Your task to perform on an android device: How far is the moon? Image 0: 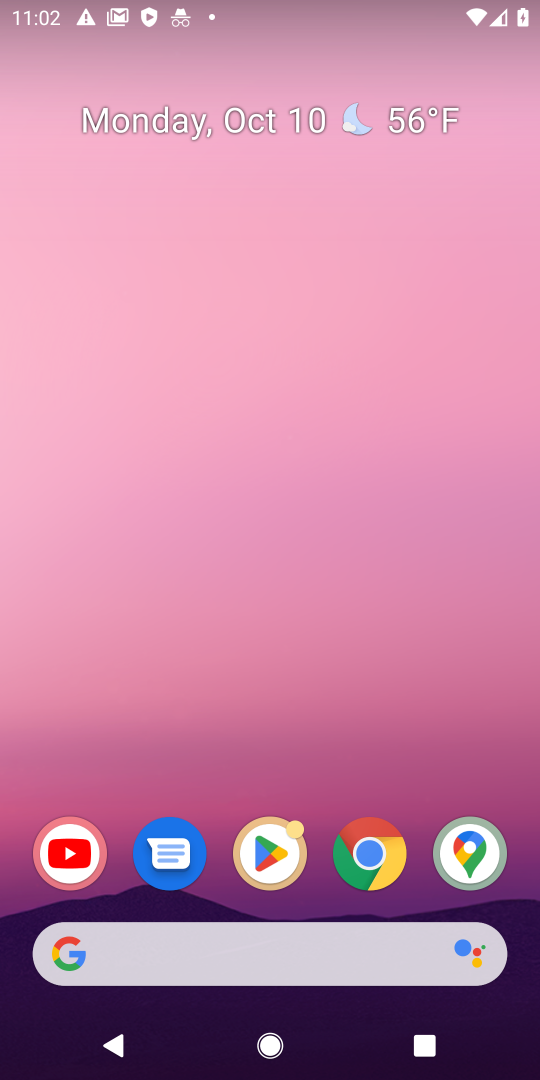
Step 0: press home button
Your task to perform on an android device: How far is the moon? Image 1: 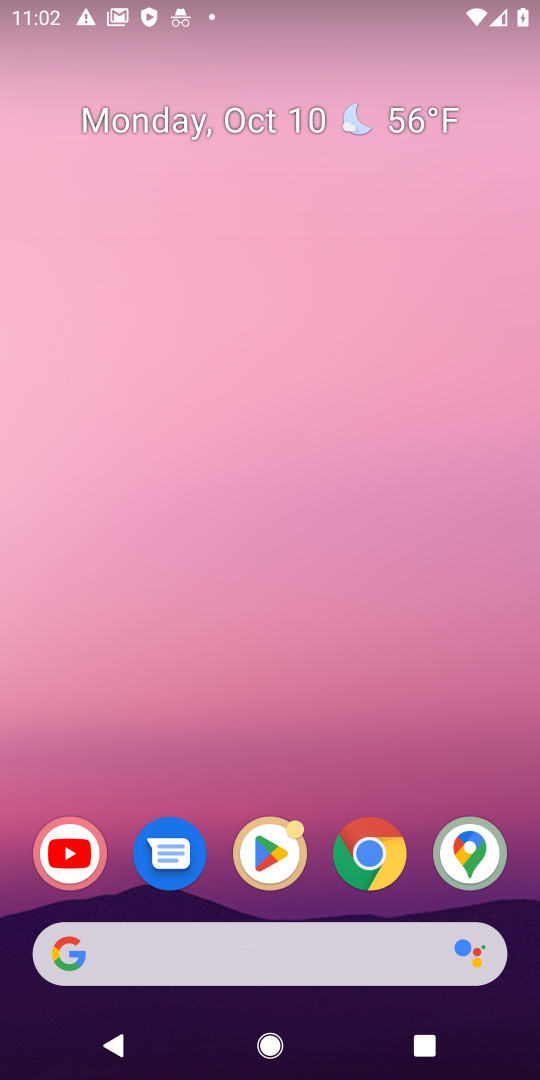
Step 1: click (235, 945)
Your task to perform on an android device: How far is the moon? Image 2: 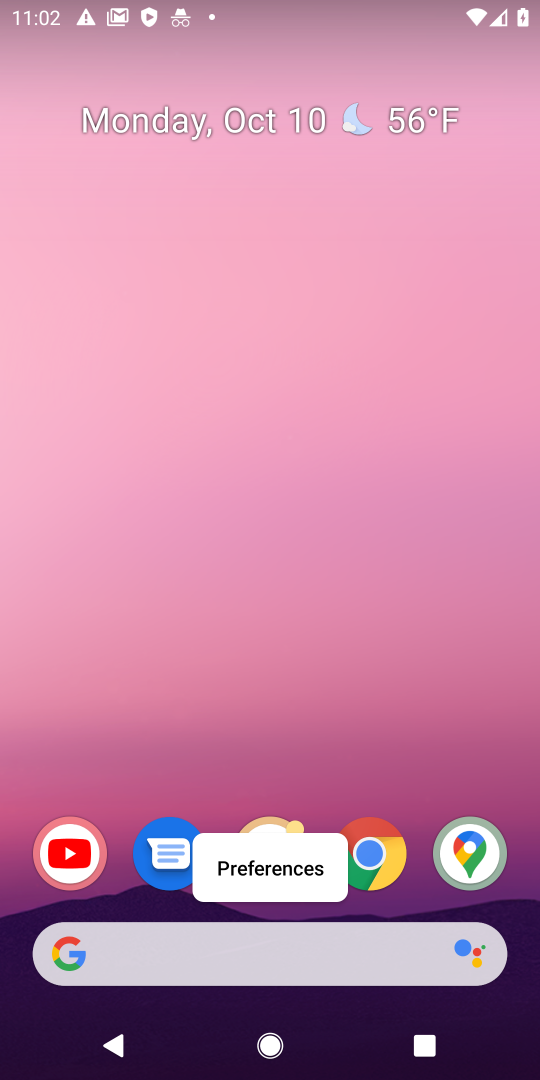
Step 2: click (221, 964)
Your task to perform on an android device: How far is the moon? Image 3: 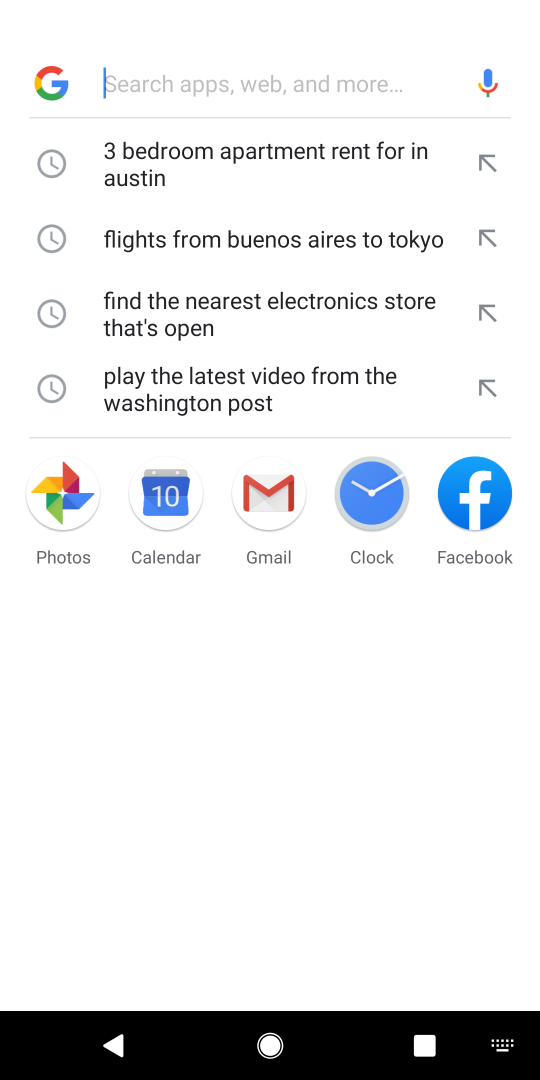
Step 3: type "How far is the moon?"
Your task to perform on an android device: How far is the moon? Image 4: 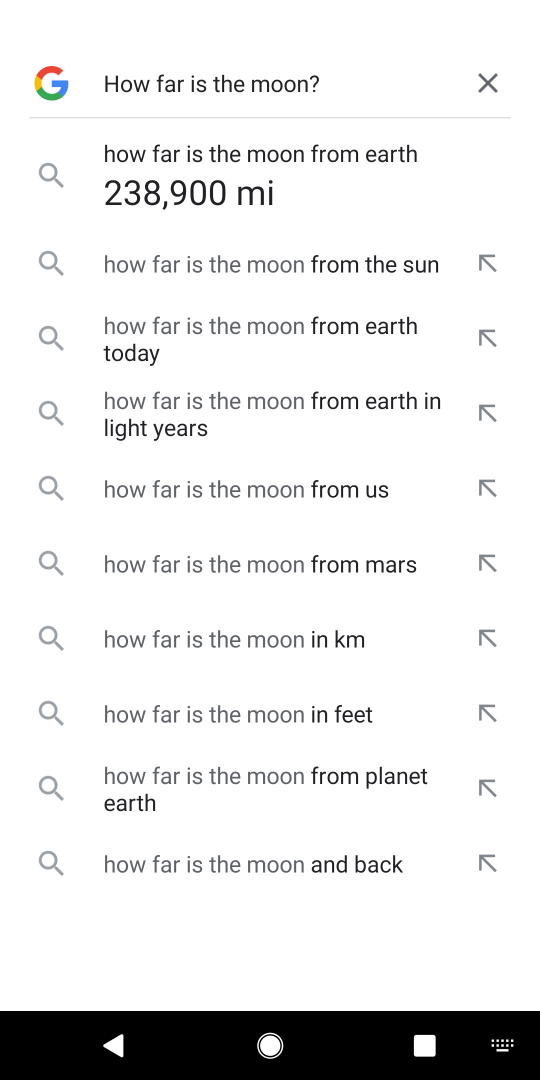
Step 4: press enter
Your task to perform on an android device: How far is the moon? Image 5: 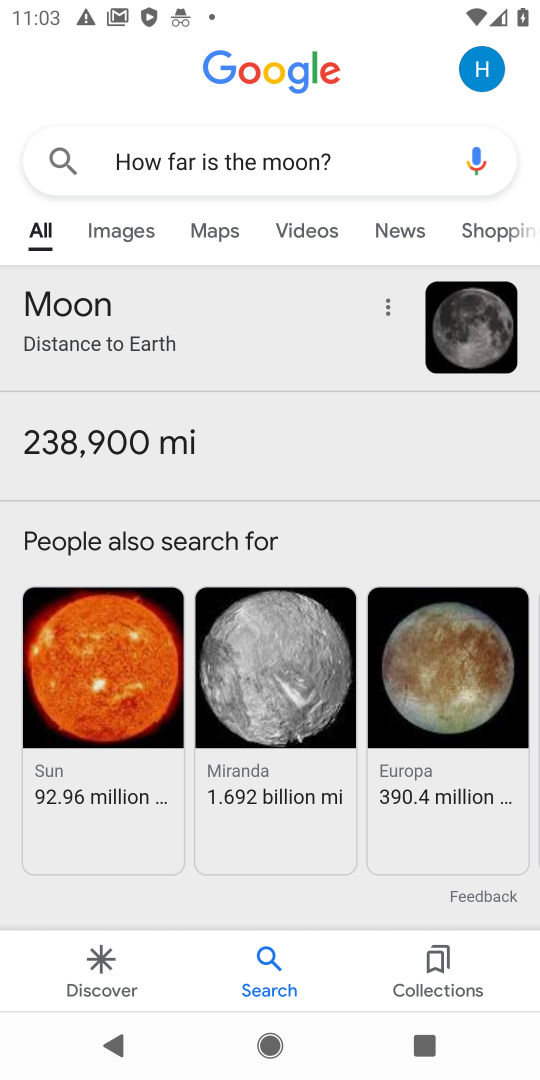
Step 5: task complete